Your task to perform on an android device: turn off notifications settings in the gmail app Image 0: 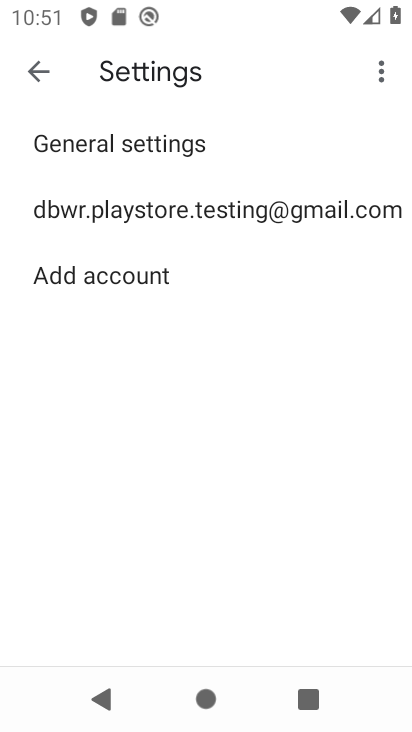
Step 0: press home button
Your task to perform on an android device: turn off notifications settings in the gmail app Image 1: 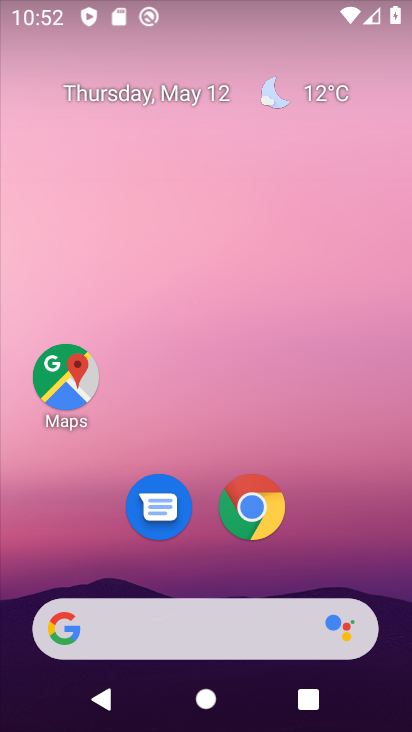
Step 1: drag from (219, 567) to (304, 0)
Your task to perform on an android device: turn off notifications settings in the gmail app Image 2: 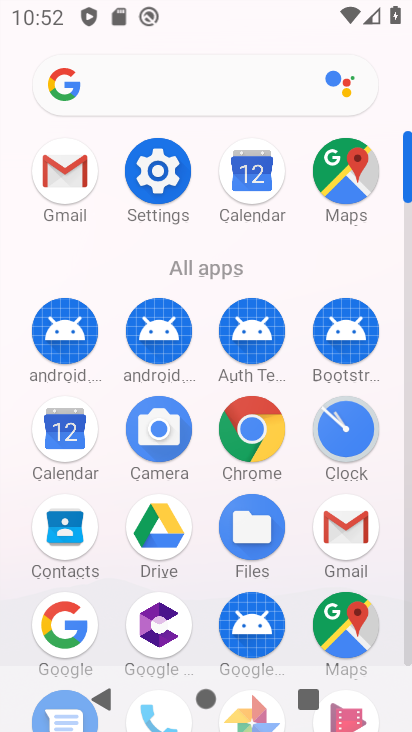
Step 2: click (347, 526)
Your task to perform on an android device: turn off notifications settings in the gmail app Image 3: 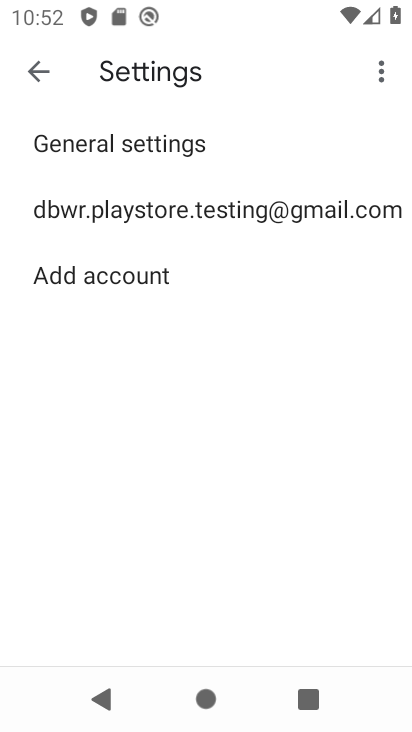
Step 3: click (125, 150)
Your task to perform on an android device: turn off notifications settings in the gmail app Image 4: 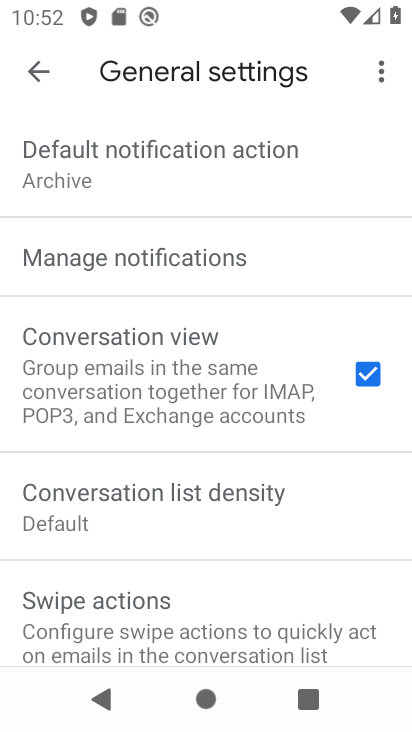
Step 4: click (138, 258)
Your task to perform on an android device: turn off notifications settings in the gmail app Image 5: 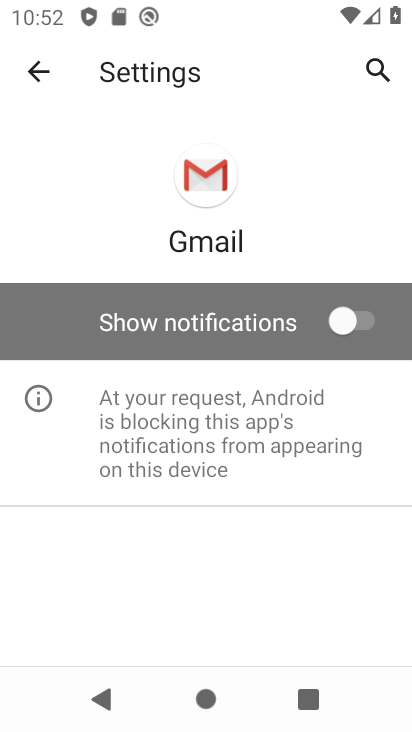
Step 5: task complete